Your task to perform on an android device: When is my next appointment? Image 0: 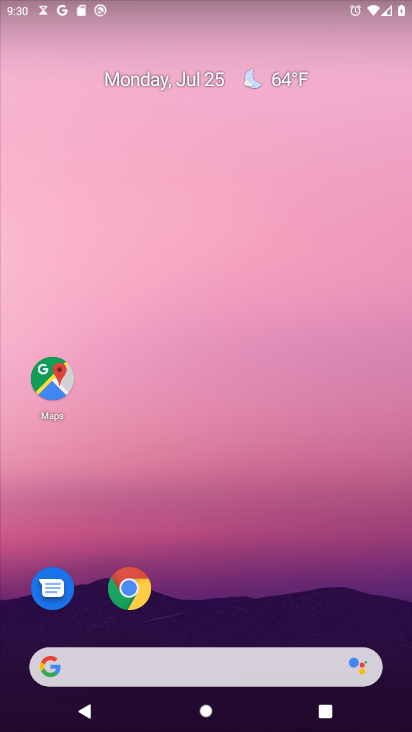
Step 0: drag from (218, 526) to (195, 436)
Your task to perform on an android device: When is my next appointment? Image 1: 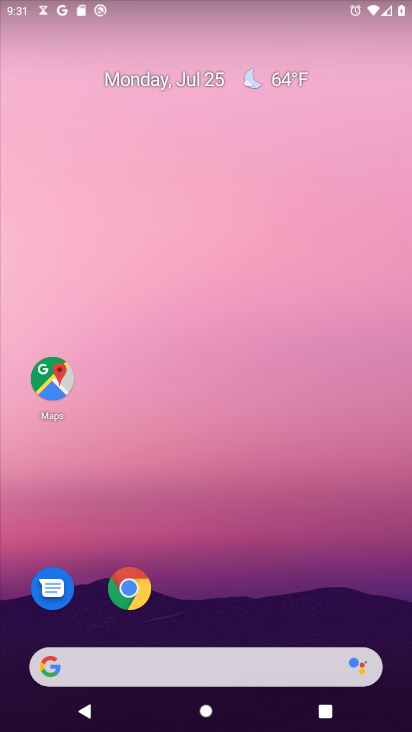
Step 1: drag from (220, 657) to (160, 195)
Your task to perform on an android device: When is my next appointment? Image 2: 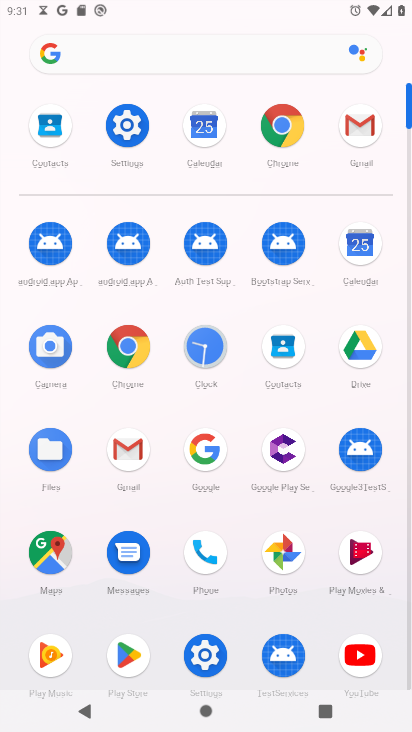
Step 2: click (344, 255)
Your task to perform on an android device: When is my next appointment? Image 3: 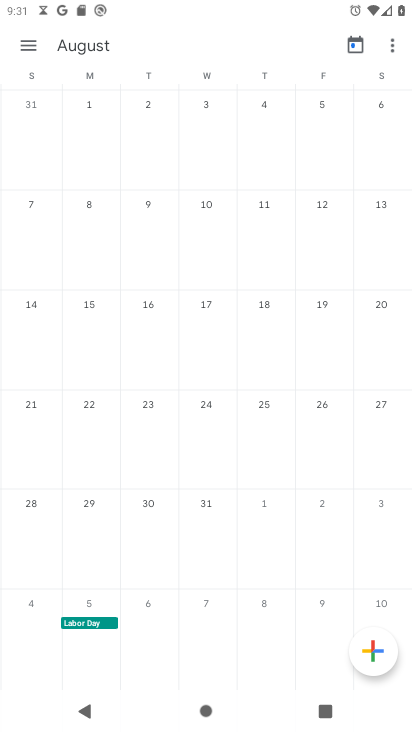
Step 3: drag from (38, 194) to (391, 215)
Your task to perform on an android device: When is my next appointment? Image 4: 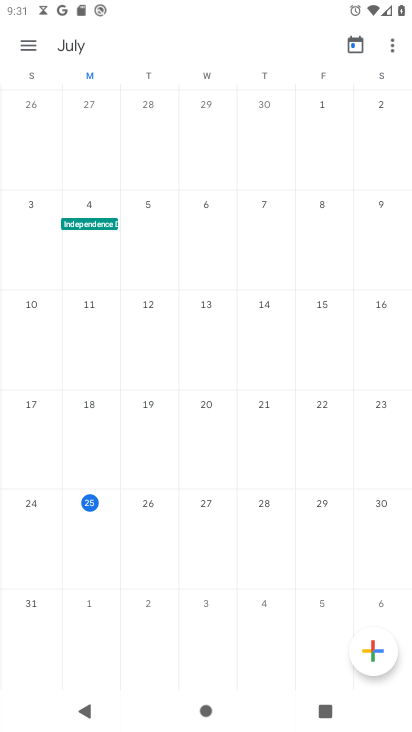
Step 4: click (21, 47)
Your task to perform on an android device: When is my next appointment? Image 5: 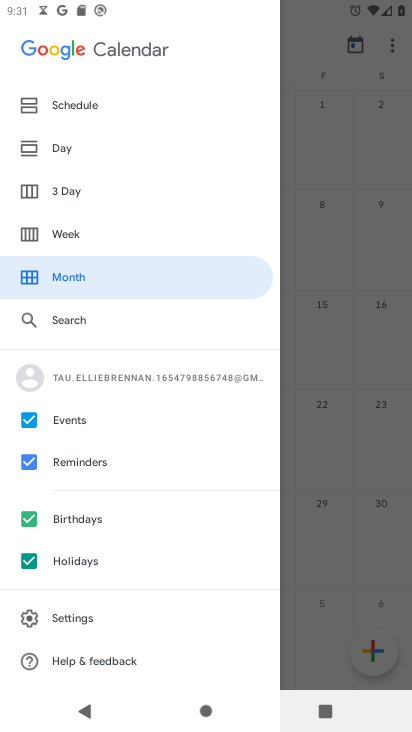
Step 5: click (83, 95)
Your task to perform on an android device: When is my next appointment? Image 6: 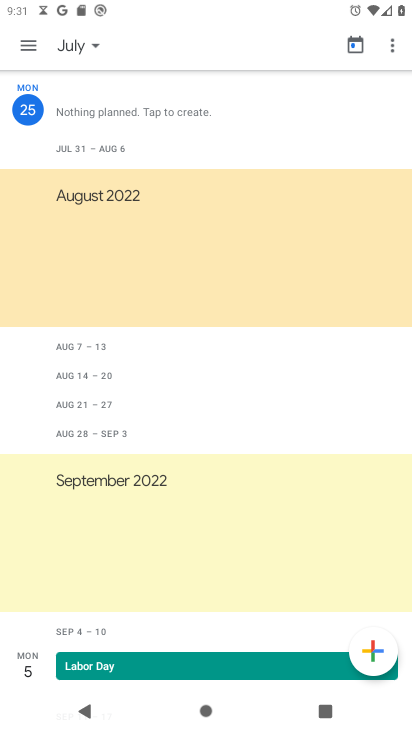
Step 6: task complete